Your task to perform on an android device: Go to Maps Image 0: 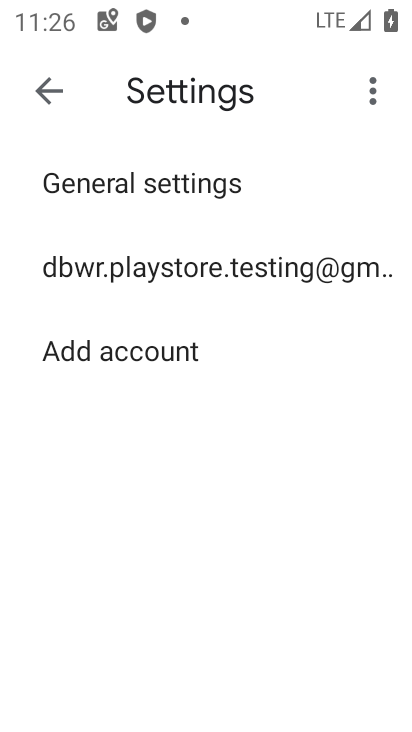
Step 0: click (36, 89)
Your task to perform on an android device: Go to Maps Image 1: 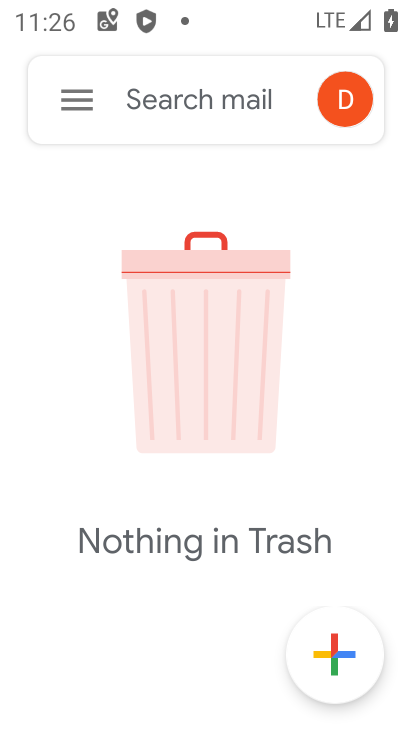
Step 1: press home button
Your task to perform on an android device: Go to Maps Image 2: 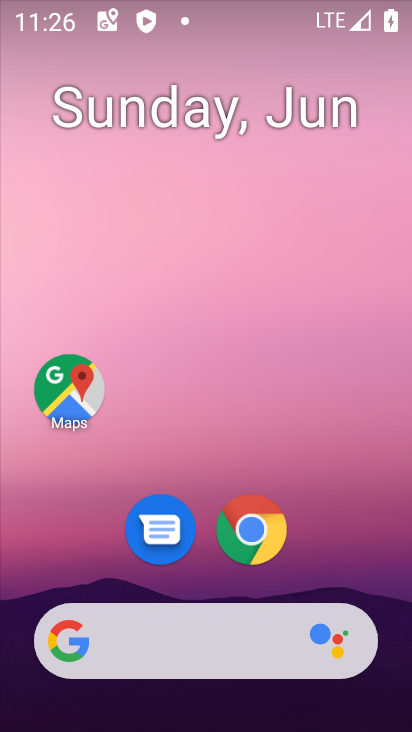
Step 2: click (56, 387)
Your task to perform on an android device: Go to Maps Image 3: 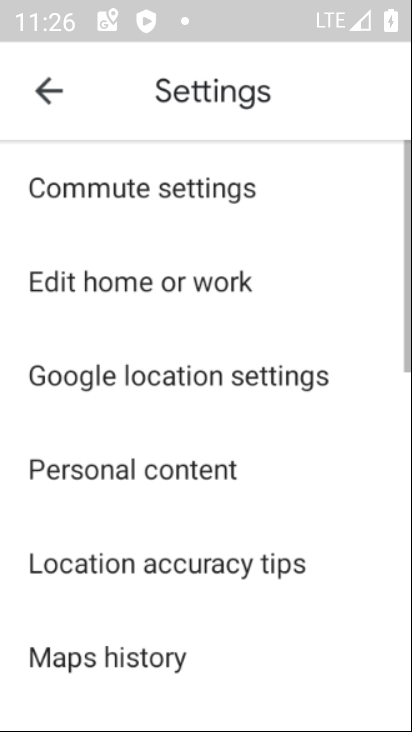
Step 3: click (29, 102)
Your task to perform on an android device: Go to Maps Image 4: 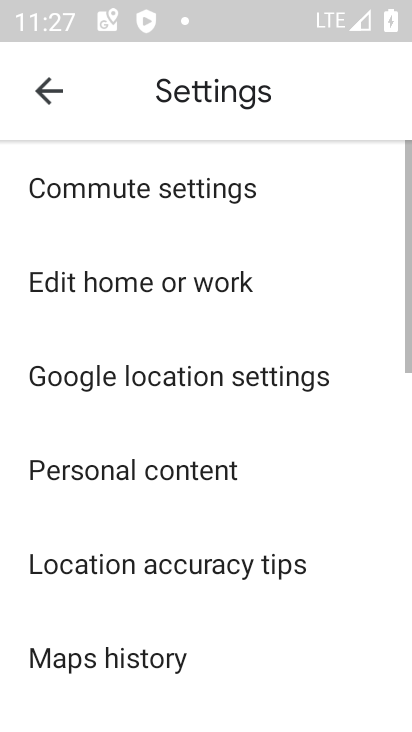
Step 4: click (47, 87)
Your task to perform on an android device: Go to Maps Image 5: 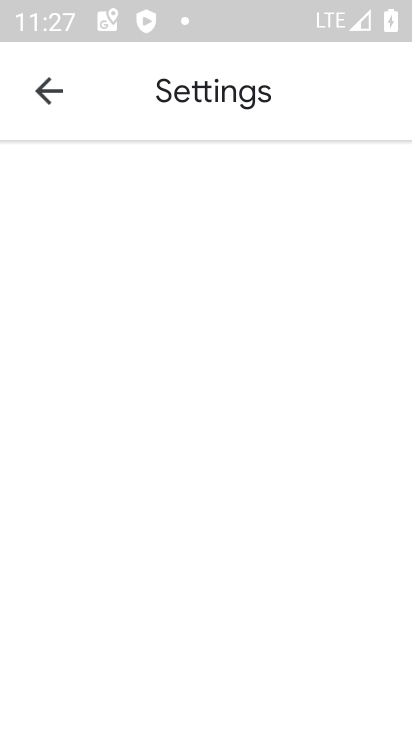
Step 5: click (47, 87)
Your task to perform on an android device: Go to Maps Image 6: 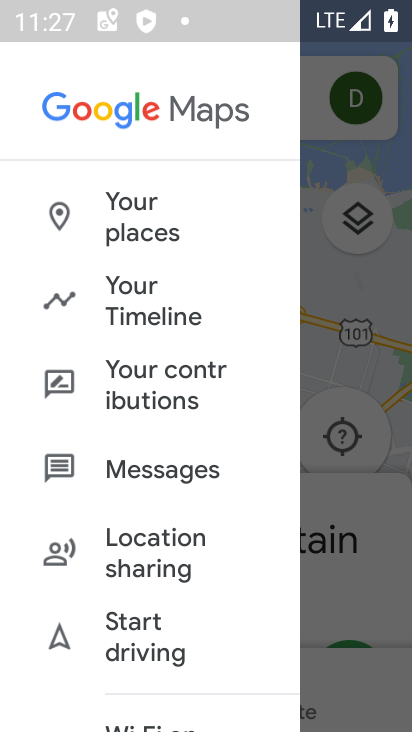
Step 6: task complete